Your task to perform on an android device: Open Google Maps and go to "Timeline" Image 0: 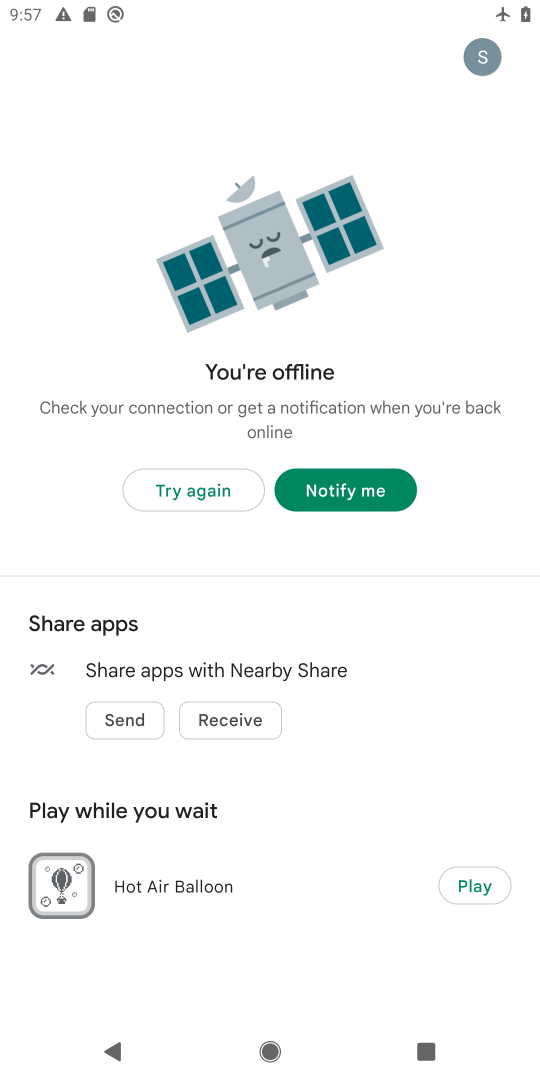
Step 0: press home button
Your task to perform on an android device: Open Google Maps and go to "Timeline" Image 1: 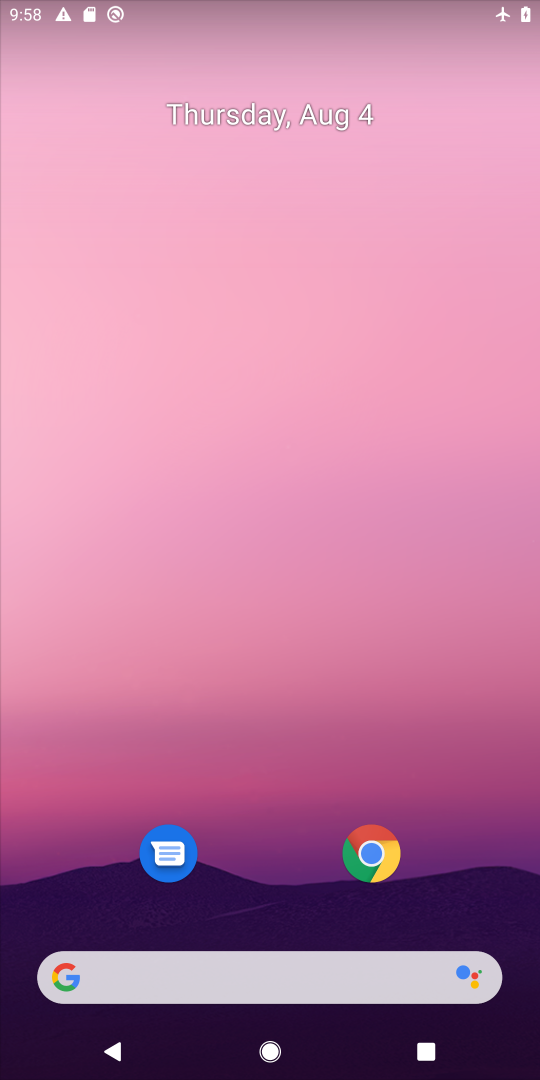
Step 1: drag from (240, 874) to (242, 80)
Your task to perform on an android device: Open Google Maps and go to "Timeline" Image 2: 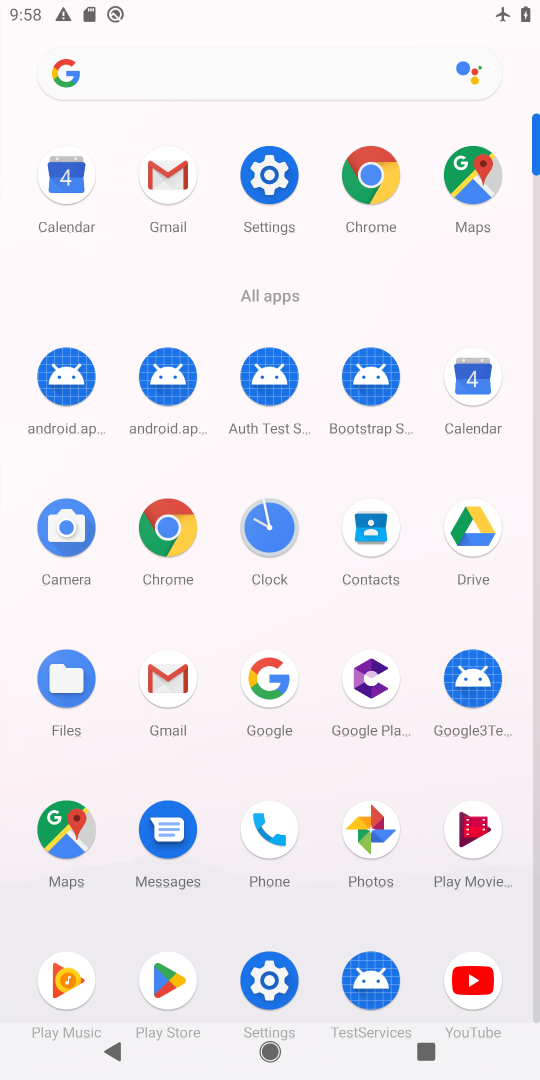
Step 2: click (30, 825)
Your task to perform on an android device: Open Google Maps and go to "Timeline" Image 3: 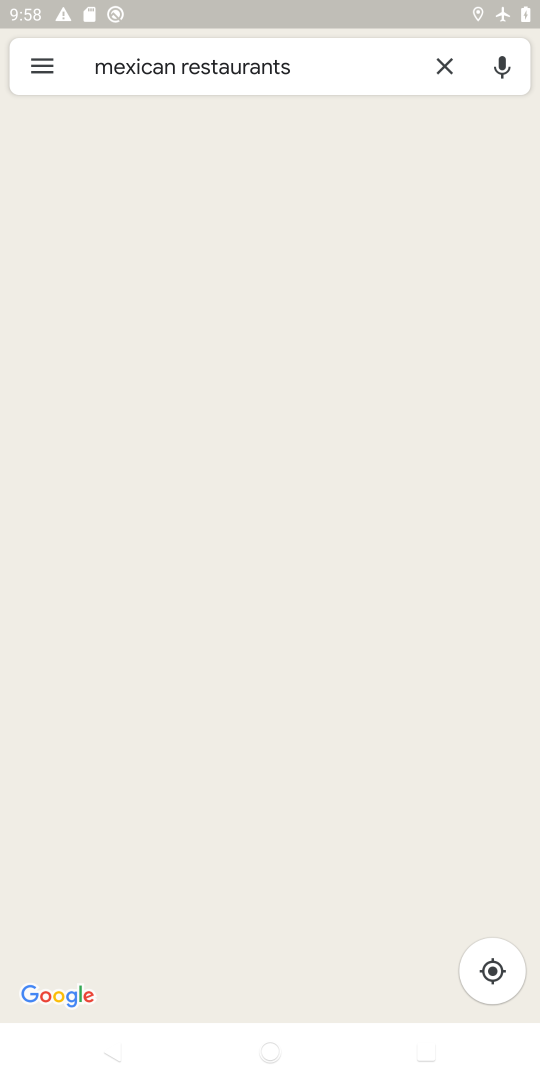
Step 3: click (32, 68)
Your task to perform on an android device: Open Google Maps and go to "Timeline" Image 4: 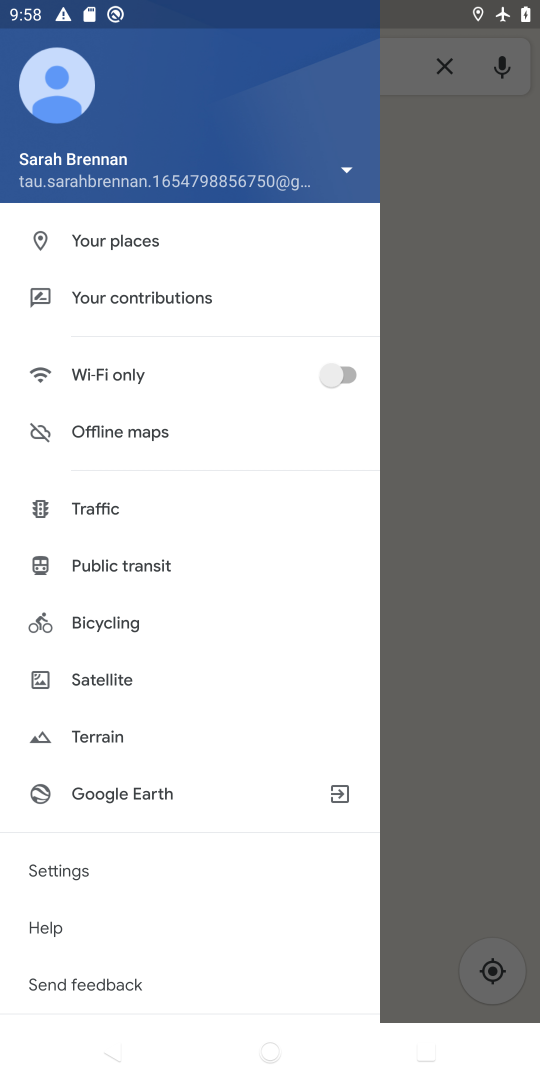
Step 4: drag from (144, 298) to (138, 465)
Your task to perform on an android device: Open Google Maps and go to "Timeline" Image 5: 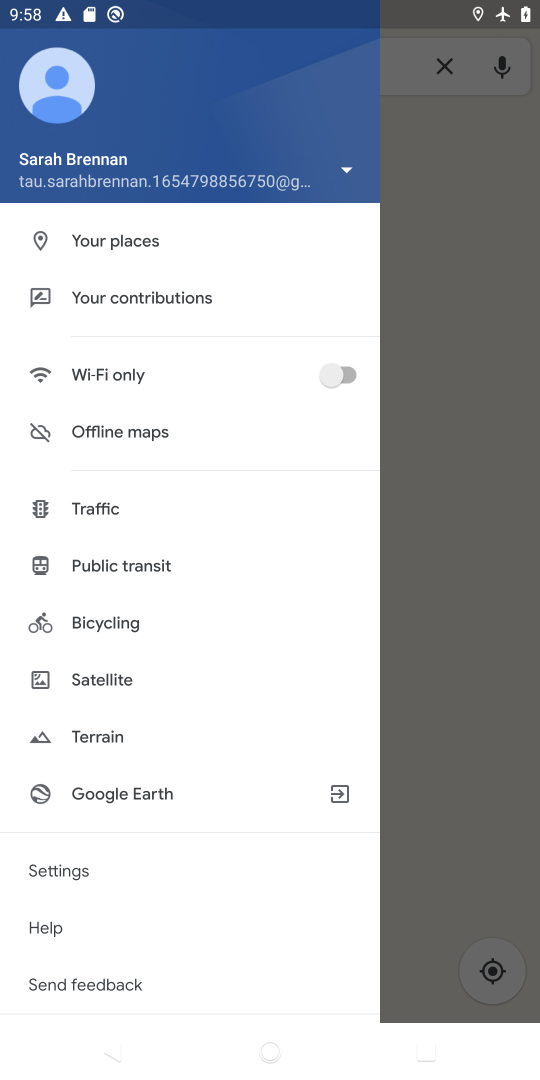
Step 5: click (179, 301)
Your task to perform on an android device: Open Google Maps and go to "Timeline" Image 6: 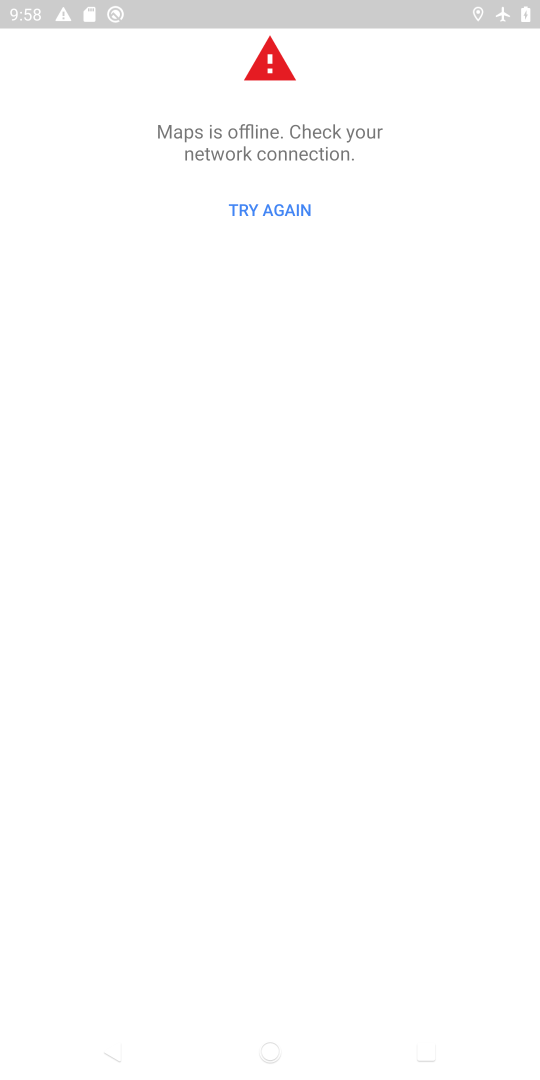
Step 6: task complete